Your task to perform on an android device: find photos in the google photos app Image 0: 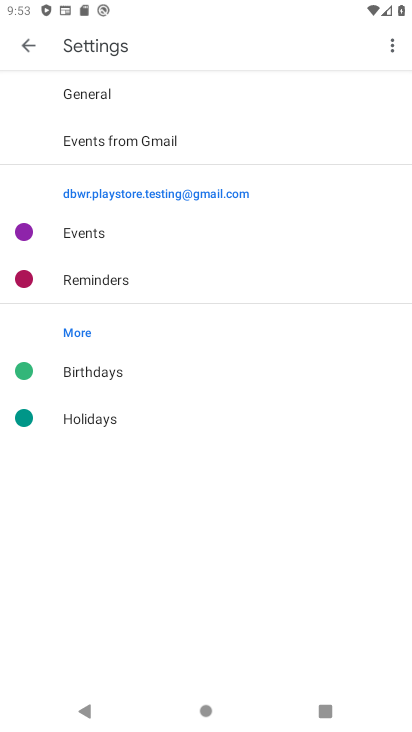
Step 0: press home button
Your task to perform on an android device: find photos in the google photos app Image 1: 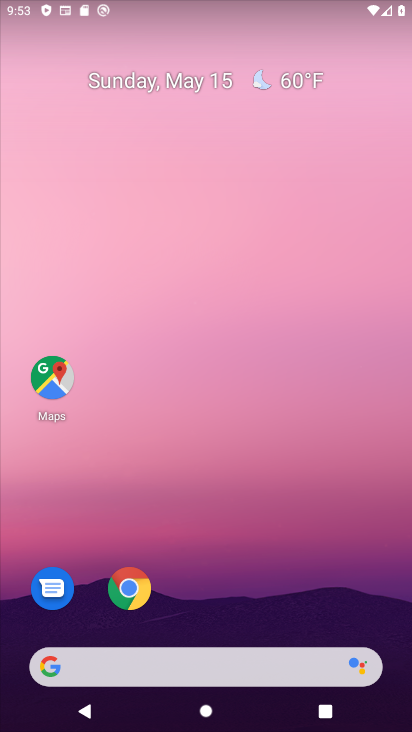
Step 1: drag from (217, 626) to (215, 147)
Your task to perform on an android device: find photos in the google photos app Image 2: 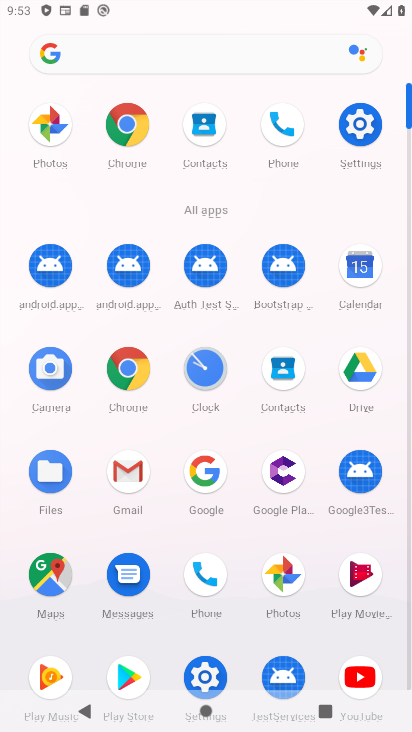
Step 2: click (49, 132)
Your task to perform on an android device: find photos in the google photos app Image 3: 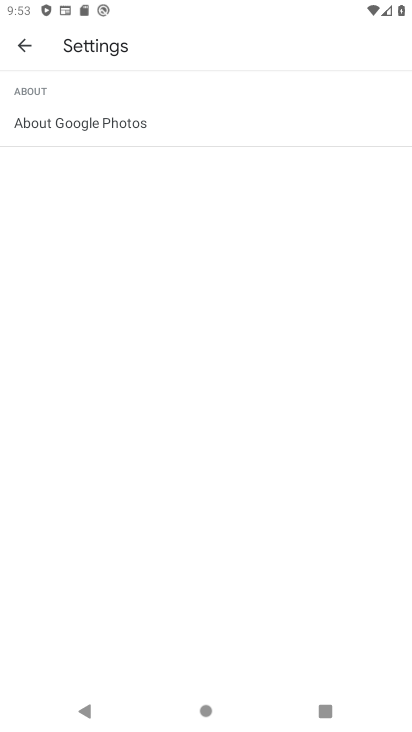
Step 3: click (22, 47)
Your task to perform on an android device: find photos in the google photos app Image 4: 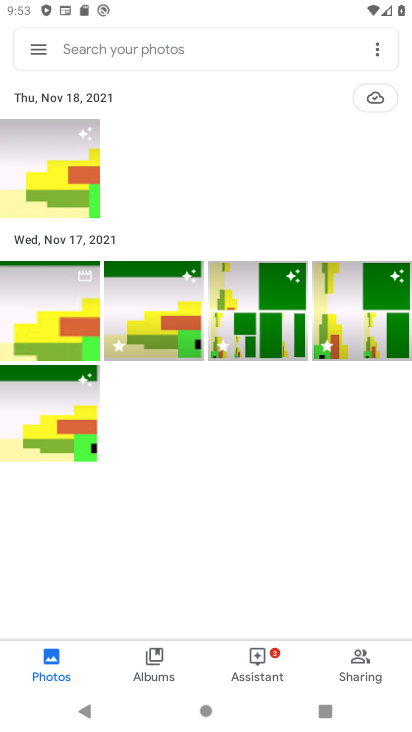
Step 4: task complete